Your task to perform on an android device: Open the Play Movies app and select the watchlist tab. Image 0: 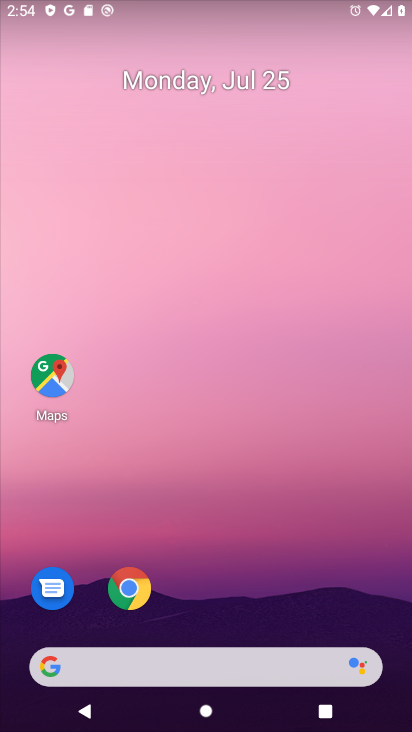
Step 0: press home button
Your task to perform on an android device: Open the Play Movies app and select the watchlist tab. Image 1: 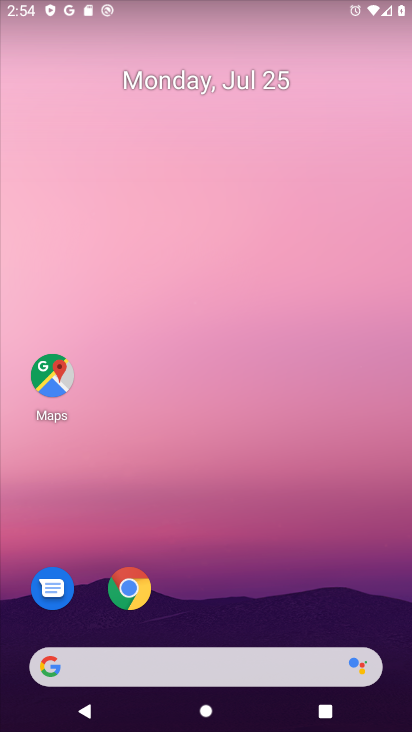
Step 1: drag from (242, 628) to (326, 84)
Your task to perform on an android device: Open the Play Movies app and select the watchlist tab. Image 2: 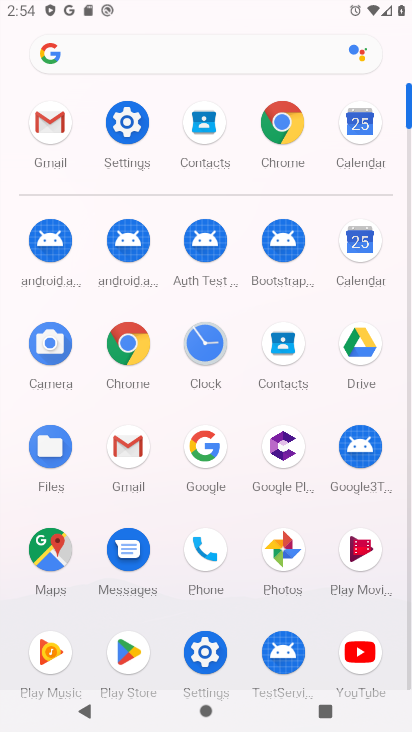
Step 2: click (359, 546)
Your task to perform on an android device: Open the Play Movies app and select the watchlist tab. Image 3: 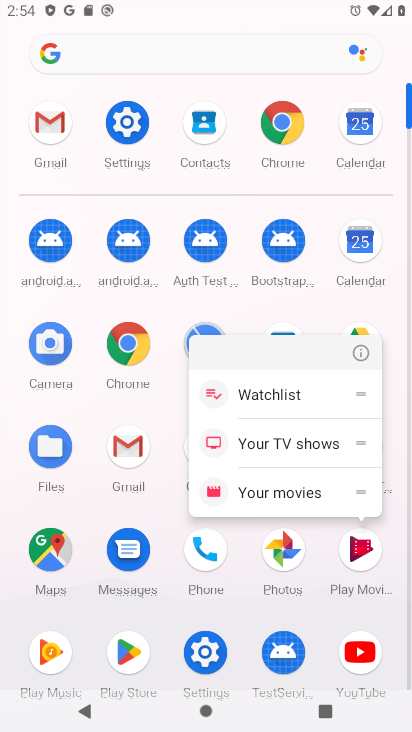
Step 3: click (358, 546)
Your task to perform on an android device: Open the Play Movies app and select the watchlist tab. Image 4: 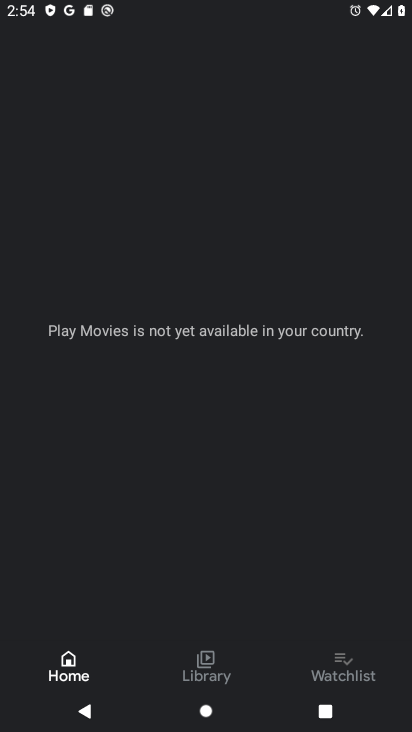
Step 4: click (340, 660)
Your task to perform on an android device: Open the Play Movies app and select the watchlist tab. Image 5: 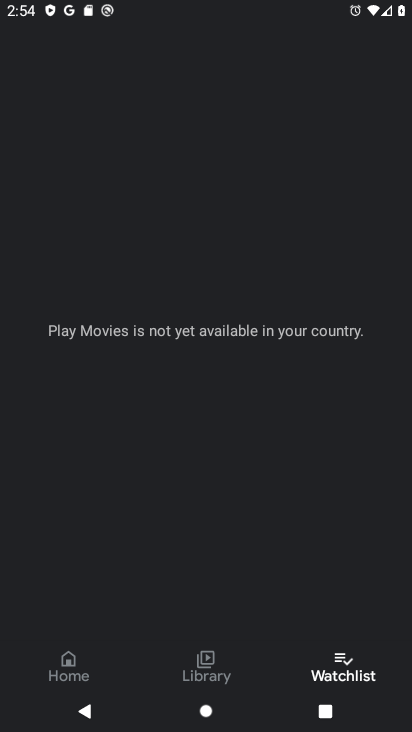
Step 5: task complete